Your task to perform on an android device: check out phone information Image 0: 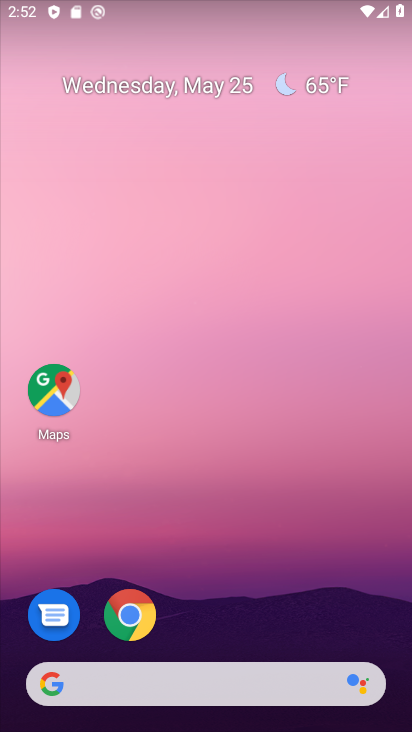
Step 0: drag from (227, 601) to (260, 11)
Your task to perform on an android device: check out phone information Image 1: 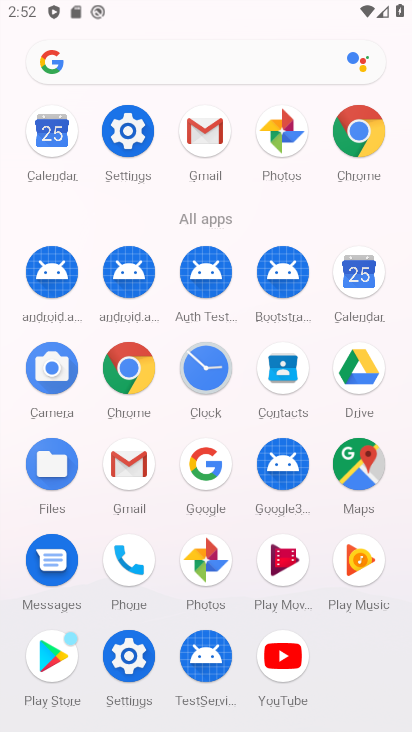
Step 1: click (119, 650)
Your task to perform on an android device: check out phone information Image 2: 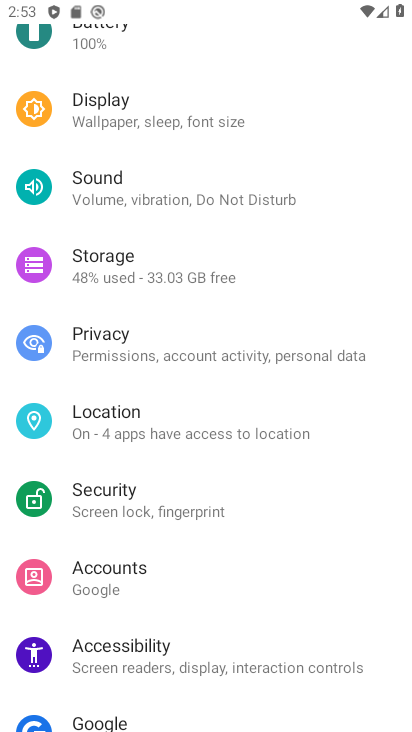
Step 2: drag from (249, 640) to (343, 41)
Your task to perform on an android device: check out phone information Image 3: 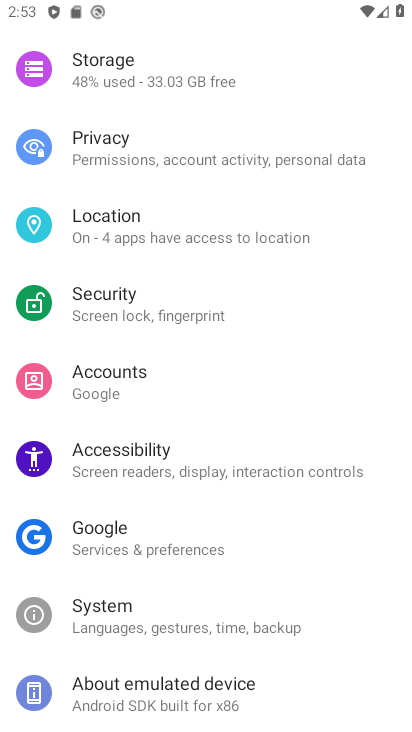
Step 3: click (234, 702)
Your task to perform on an android device: check out phone information Image 4: 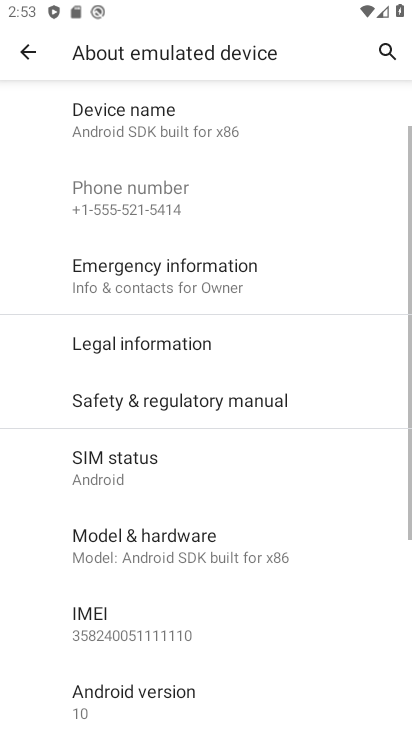
Step 4: task complete